Your task to perform on an android device: Open network settings Image 0: 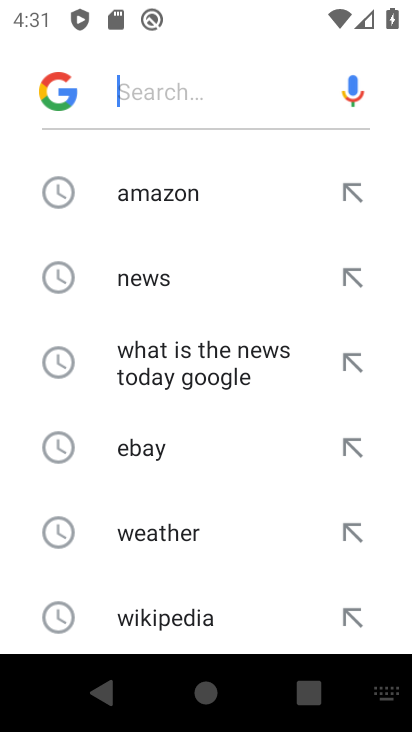
Step 0: press back button
Your task to perform on an android device: Open network settings Image 1: 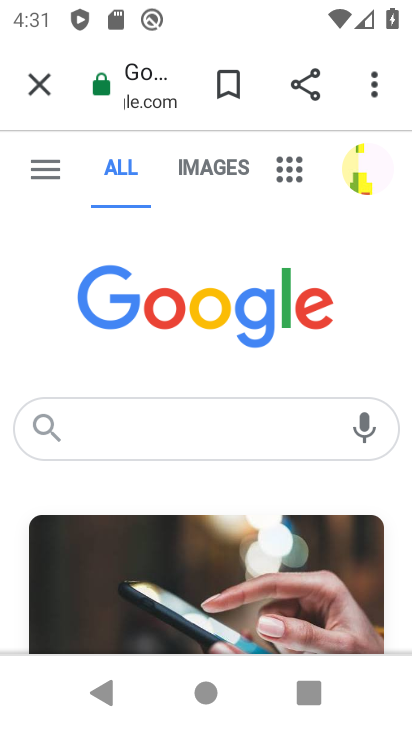
Step 1: press back button
Your task to perform on an android device: Open network settings Image 2: 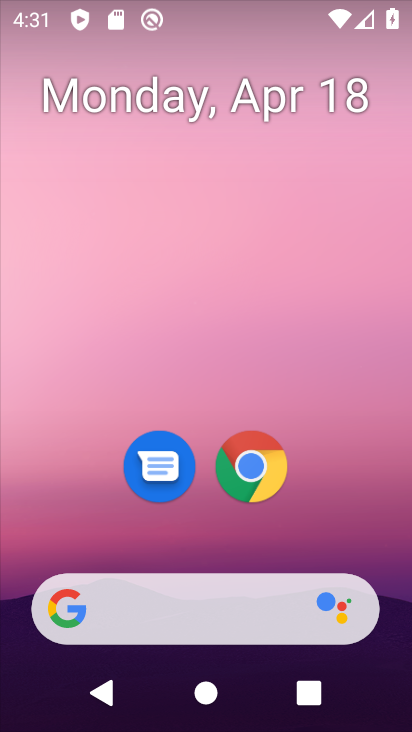
Step 2: drag from (327, 494) to (312, 42)
Your task to perform on an android device: Open network settings Image 3: 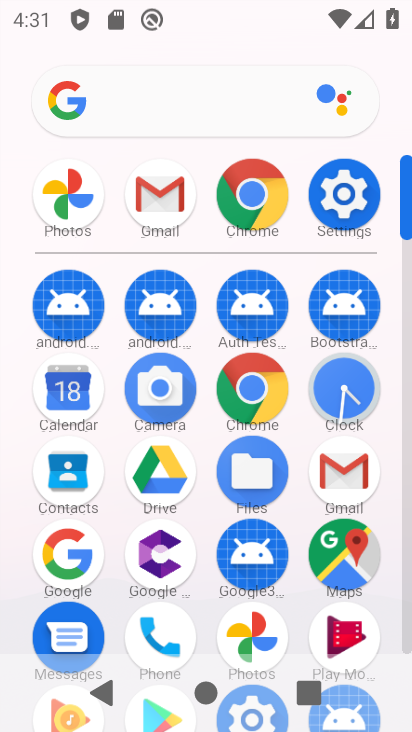
Step 3: click (343, 194)
Your task to perform on an android device: Open network settings Image 4: 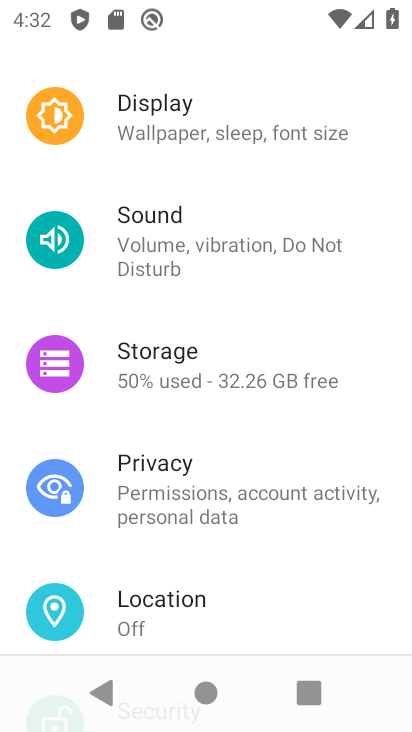
Step 4: drag from (319, 210) to (260, 466)
Your task to perform on an android device: Open network settings Image 5: 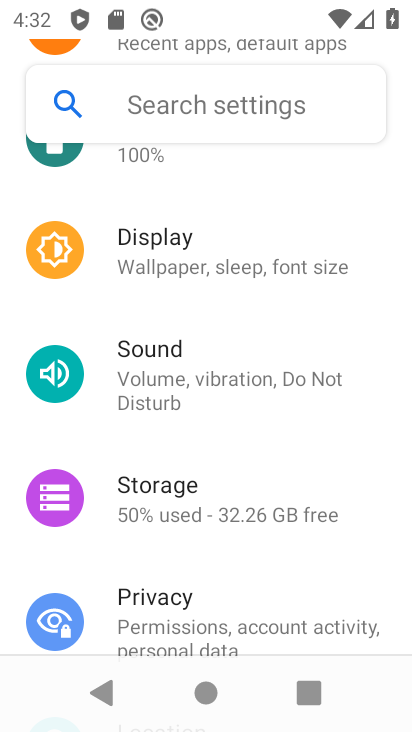
Step 5: drag from (286, 275) to (262, 551)
Your task to perform on an android device: Open network settings Image 6: 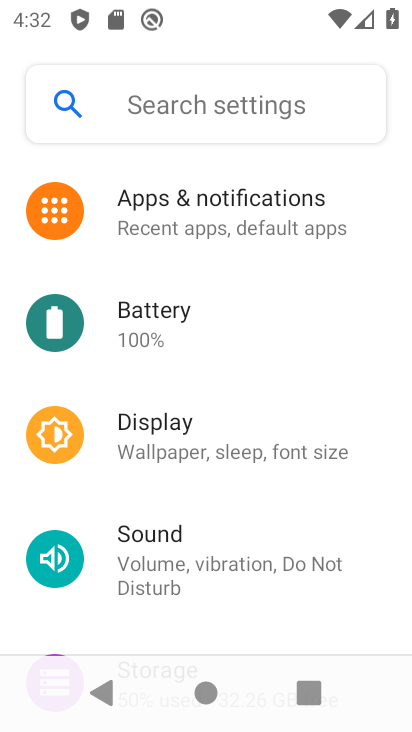
Step 6: click (254, 219)
Your task to perform on an android device: Open network settings Image 7: 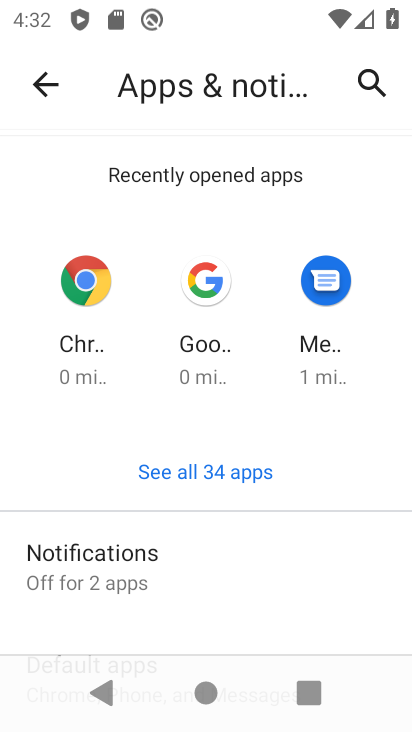
Step 7: drag from (241, 579) to (252, 267)
Your task to perform on an android device: Open network settings Image 8: 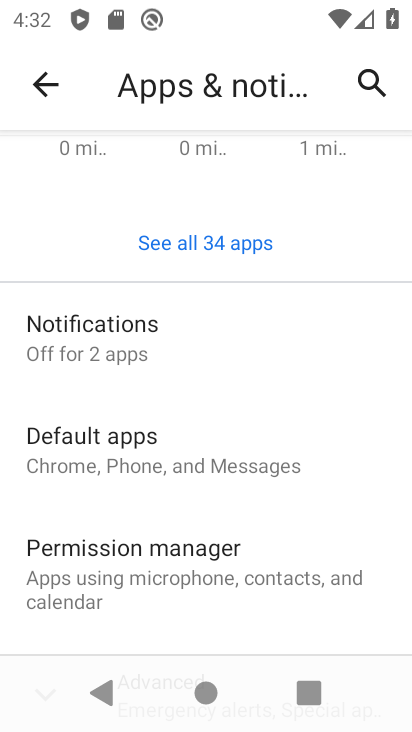
Step 8: drag from (213, 508) to (229, 214)
Your task to perform on an android device: Open network settings Image 9: 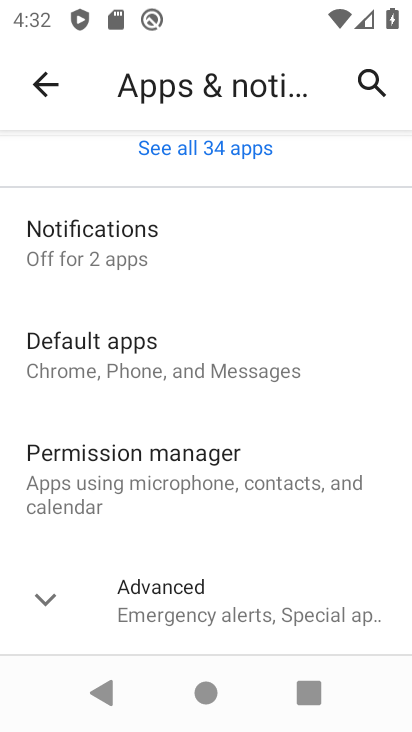
Step 9: click (137, 611)
Your task to perform on an android device: Open network settings Image 10: 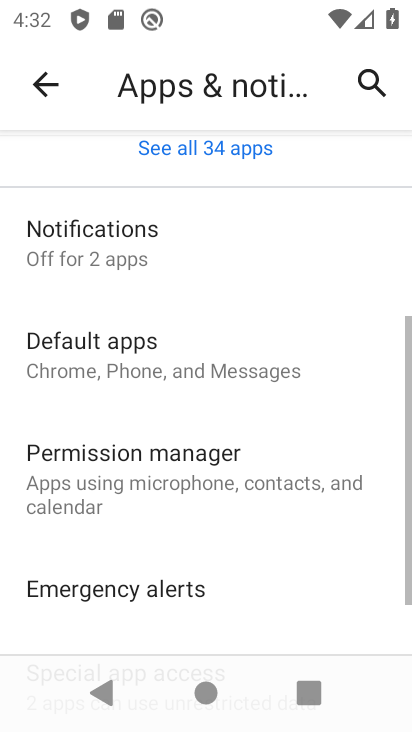
Step 10: drag from (238, 571) to (244, 219)
Your task to perform on an android device: Open network settings Image 11: 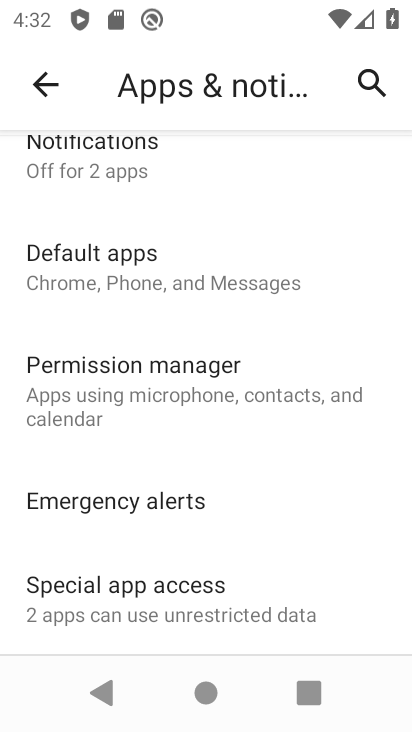
Step 11: drag from (219, 371) to (228, 240)
Your task to perform on an android device: Open network settings Image 12: 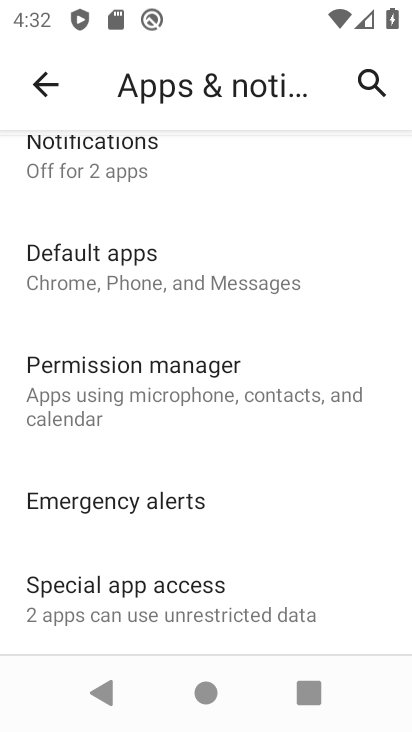
Step 12: drag from (263, 199) to (229, 502)
Your task to perform on an android device: Open network settings Image 13: 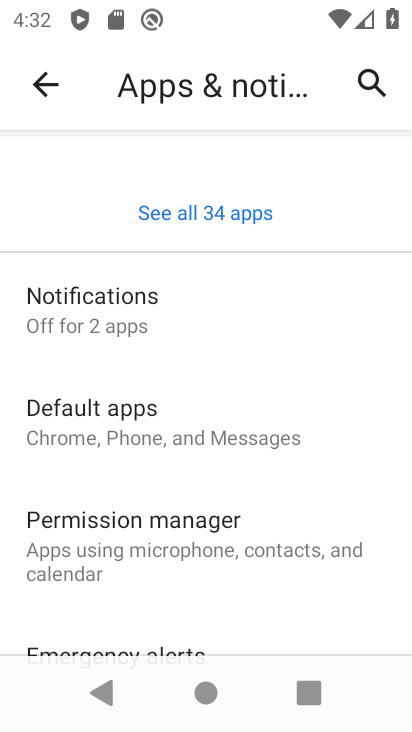
Step 13: drag from (246, 328) to (215, 572)
Your task to perform on an android device: Open network settings Image 14: 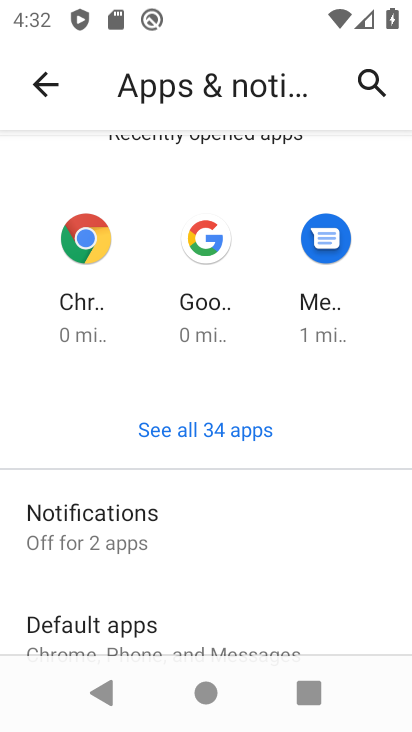
Step 14: drag from (149, 554) to (132, 265)
Your task to perform on an android device: Open network settings Image 15: 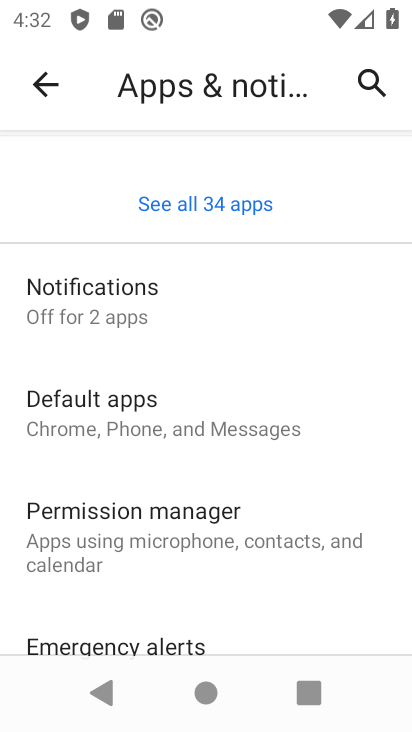
Step 15: drag from (184, 514) to (196, 217)
Your task to perform on an android device: Open network settings Image 16: 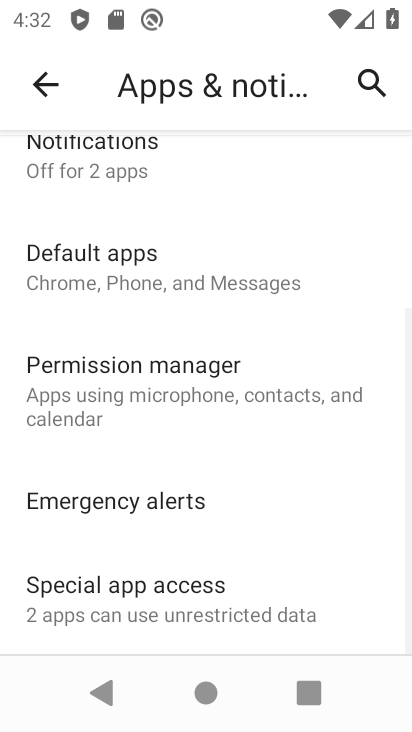
Step 16: drag from (184, 537) to (203, 311)
Your task to perform on an android device: Open network settings Image 17: 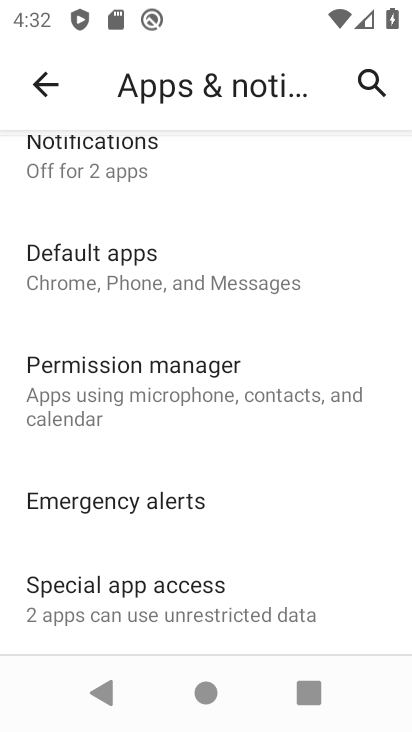
Step 17: click (65, 93)
Your task to perform on an android device: Open network settings Image 18: 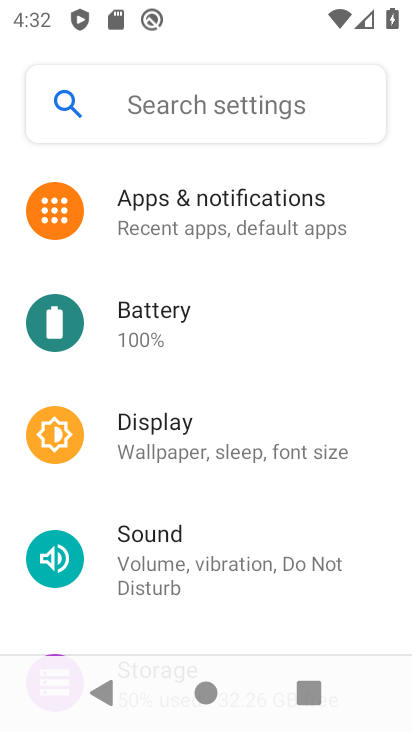
Step 18: drag from (231, 476) to (209, 234)
Your task to perform on an android device: Open network settings Image 19: 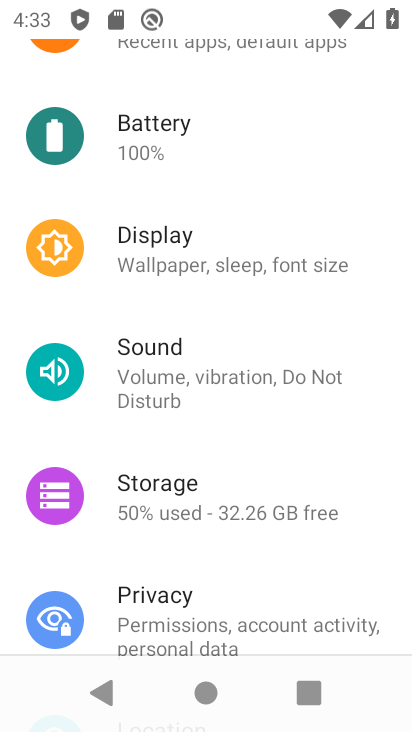
Step 19: drag from (188, 565) to (185, 606)
Your task to perform on an android device: Open network settings Image 20: 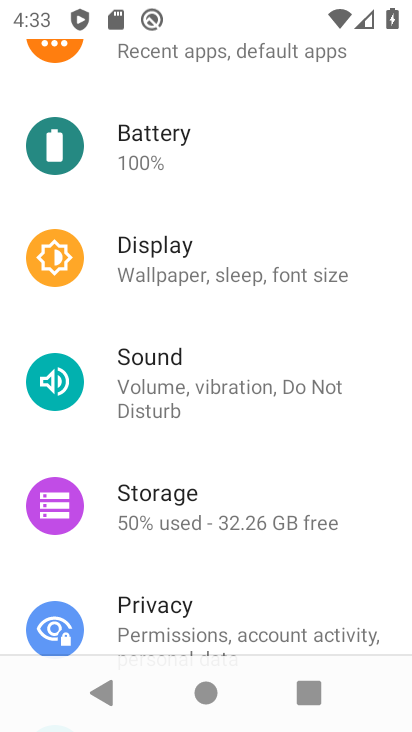
Step 20: drag from (216, 198) to (191, 514)
Your task to perform on an android device: Open network settings Image 21: 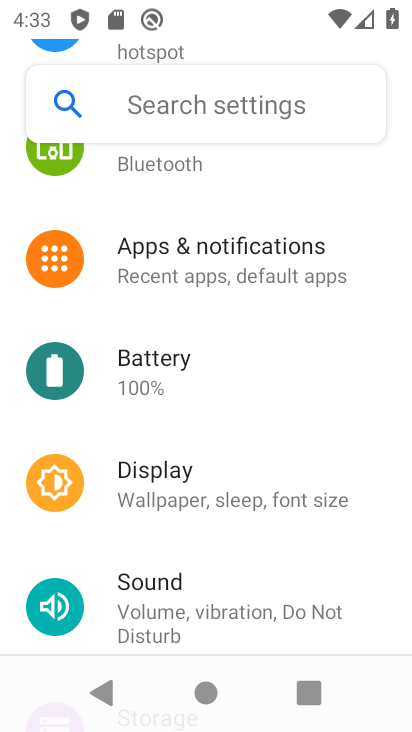
Step 21: drag from (221, 244) to (216, 467)
Your task to perform on an android device: Open network settings Image 22: 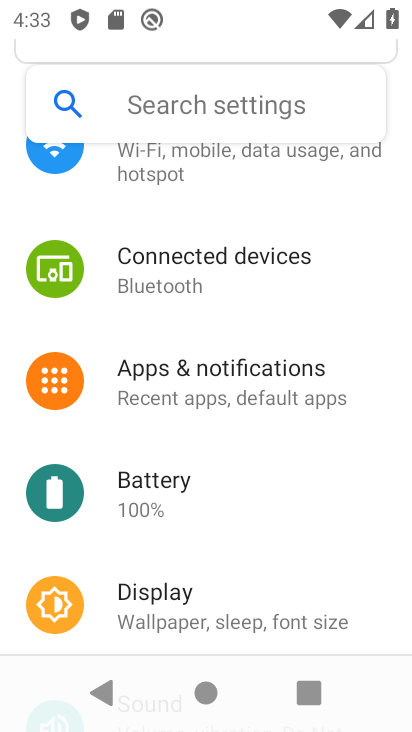
Step 22: drag from (256, 199) to (237, 413)
Your task to perform on an android device: Open network settings Image 23: 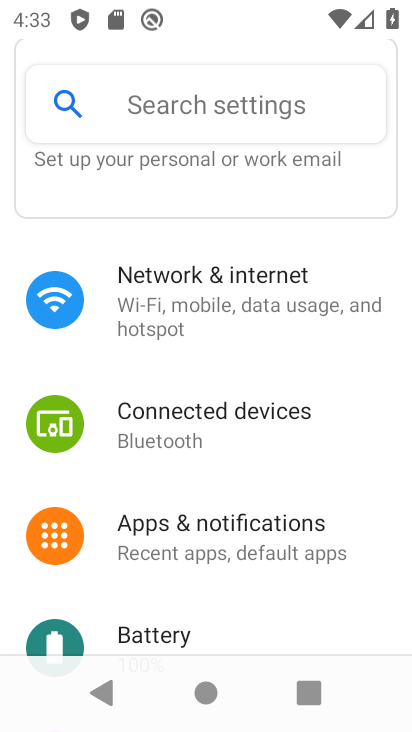
Step 23: click (232, 320)
Your task to perform on an android device: Open network settings Image 24: 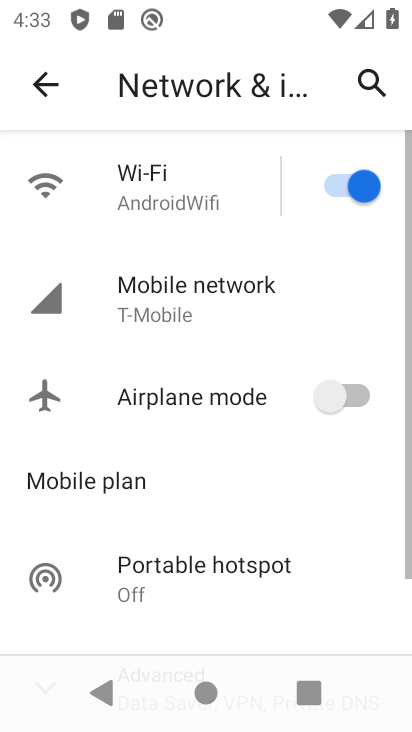
Step 24: click (225, 304)
Your task to perform on an android device: Open network settings Image 25: 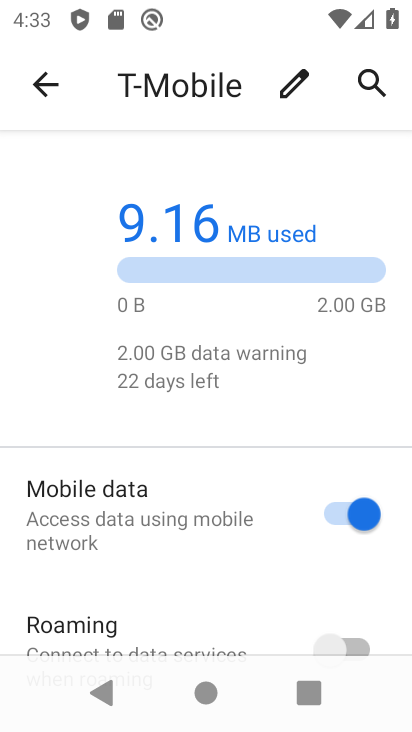
Step 25: task complete